Your task to perform on an android device: Toggle the flashlight Image 0: 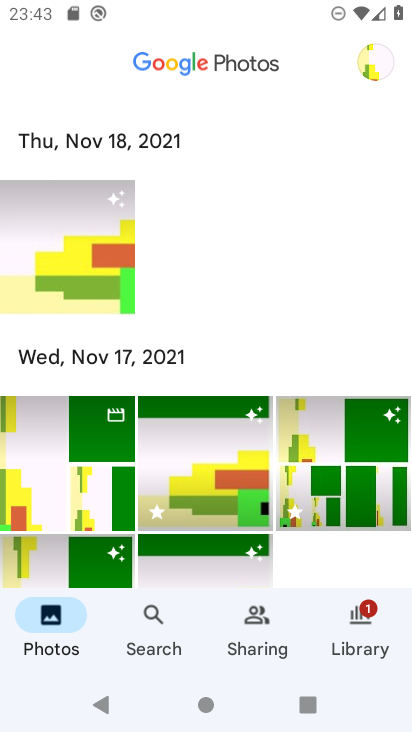
Step 0: press home button
Your task to perform on an android device: Toggle the flashlight Image 1: 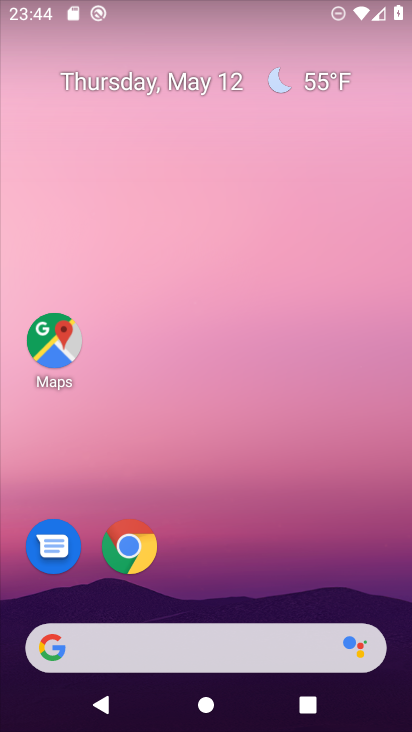
Step 1: drag from (191, 295) to (190, 155)
Your task to perform on an android device: Toggle the flashlight Image 2: 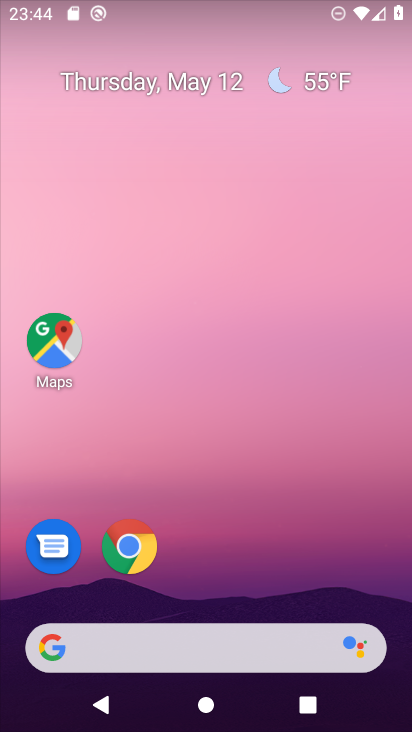
Step 2: drag from (276, 528) to (283, 140)
Your task to perform on an android device: Toggle the flashlight Image 3: 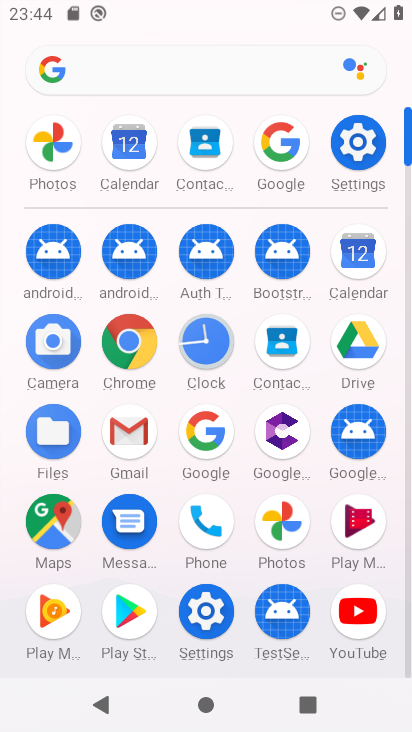
Step 3: click (350, 140)
Your task to perform on an android device: Toggle the flashlight Image 4: 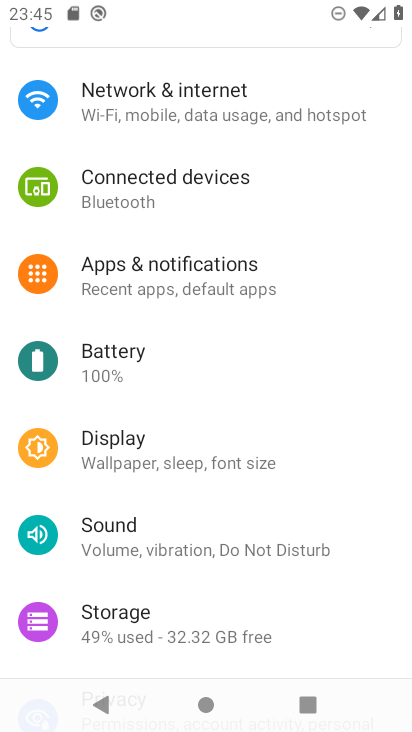
Step 4: click (171, 448)
Your task to perform on an android device: Toggle the flashlight Image 5: 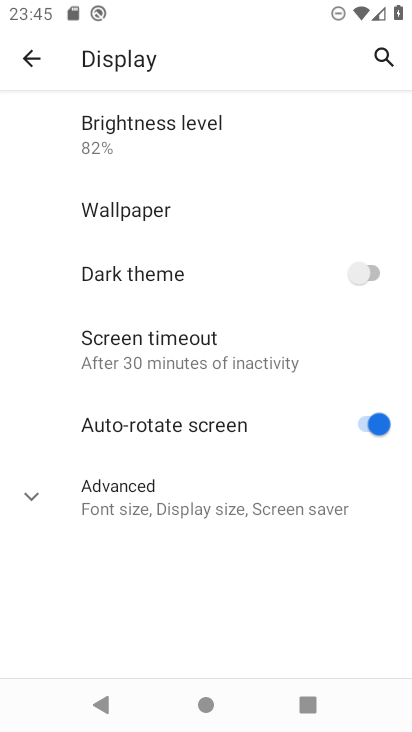
Step 5: task complete